Your task to perform on an android device: open a bookmark in the chrome app Image 0: 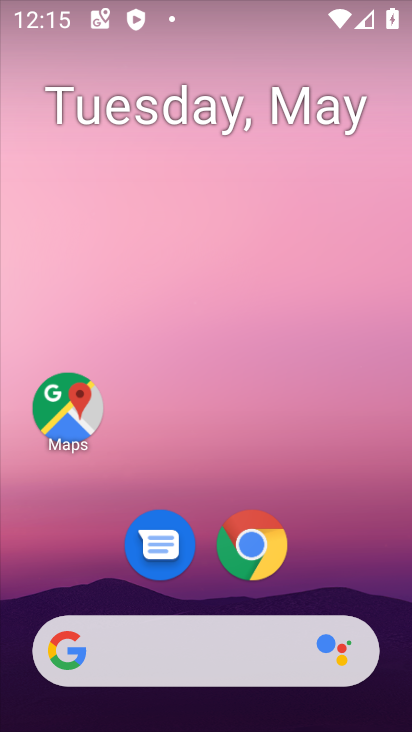
Step 0: click (249, 550)
Your task to perform on an android device: open a bookmark in the chrome app Image 1: 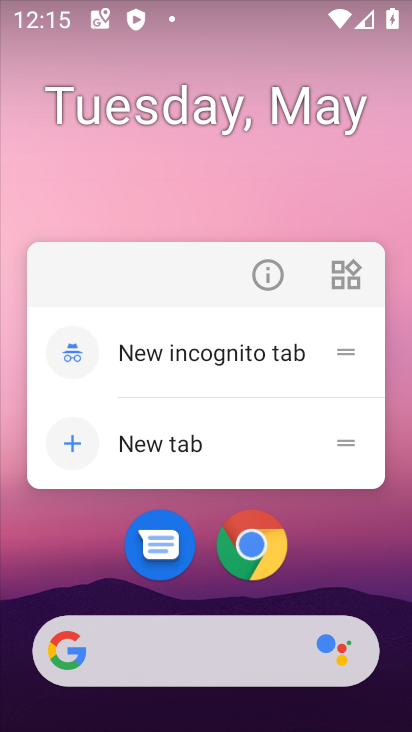
Step 1: click (251, 532)
Your task to perform on an android device: open a bookmark in the chrome app Image 2: 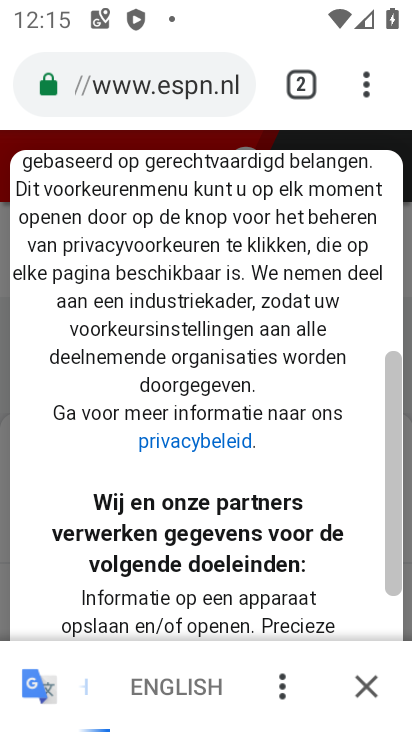
Step 2: click (382, 95)
Your task to perform on an android device: open a bookmark in the chrome app Image 3: 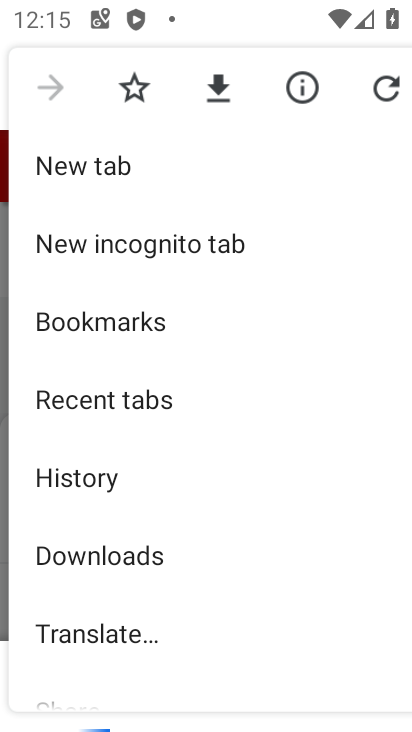
Step 3: click (128, 350)
Your task to perform on an android device: open a bookmark in the chrome app Image 4: 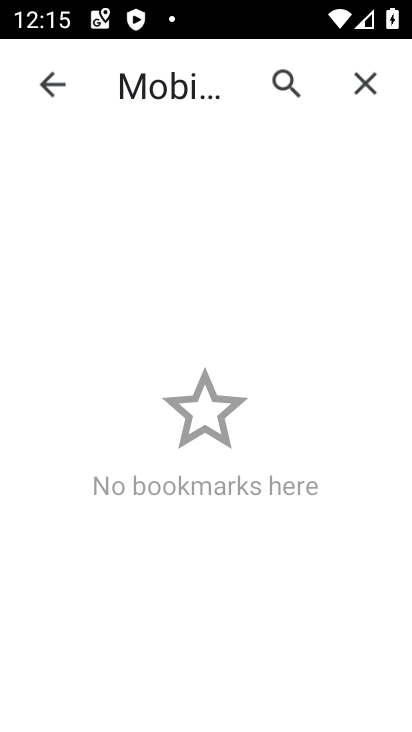
Step 4: task complete